Your task to perform on an android device: Open my contact list Image 0: 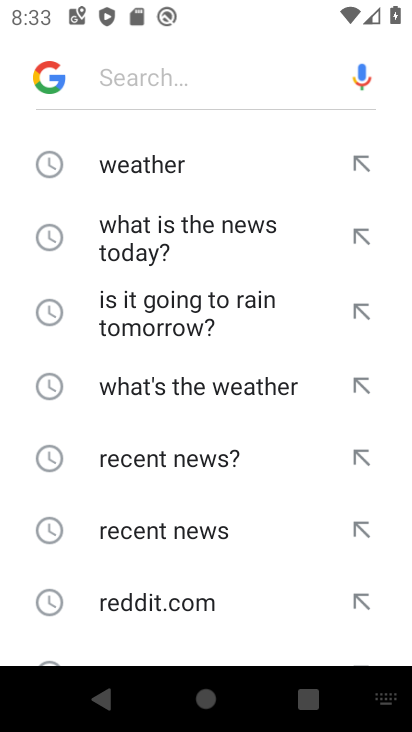
Step 0: press home button
Your task to perform on an android device: Open my contact list Image 1: 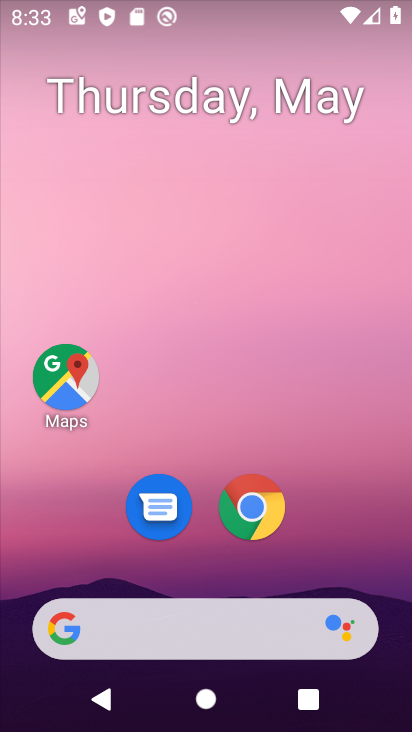
Step 1: drag from (365, 553) to (360, 77)
Your task to perform on an android device: Open my contact list Image 2: 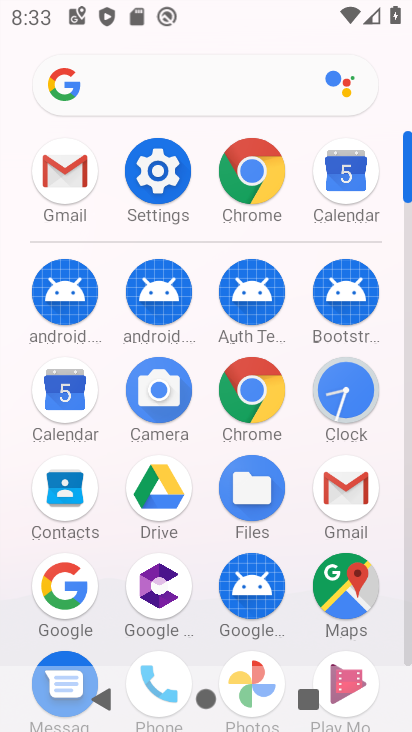
Step 2: click (76, 504)
Your task to perform on an android device: Open my contact list Image 3: 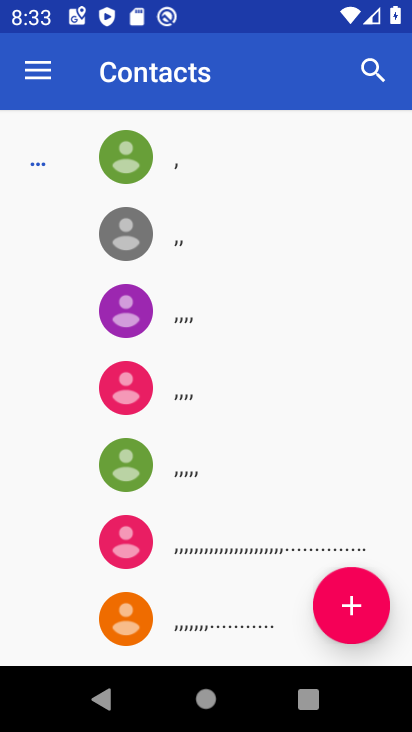
Step 3: task complete